Your task to perform on an android device: open a bookmark in the chrome app Image 0: 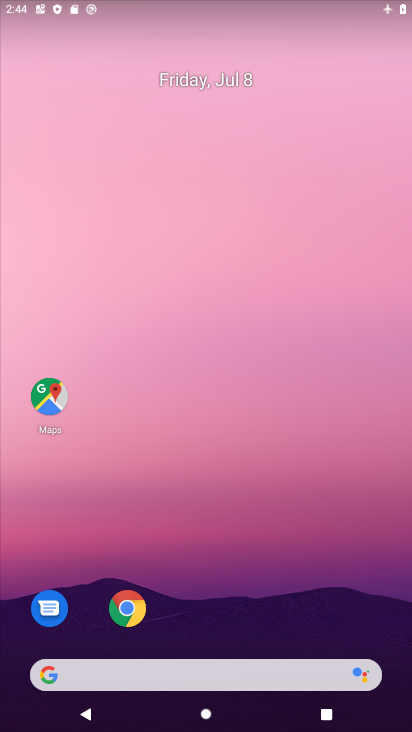
Step 0: drag from (295, 678) to (351, 30)
Your task to perform on an android device: open a bookmark in the chrome app Image 1: 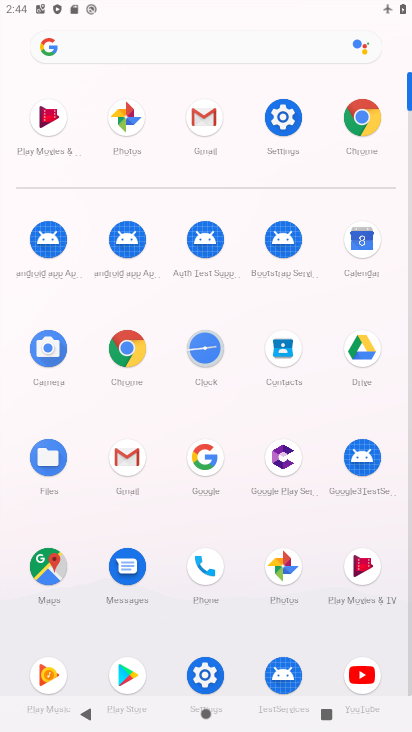
Step 1: click (133, 362)
Your task to perform on an android device: open a bookmark in the chrome app Image 2: 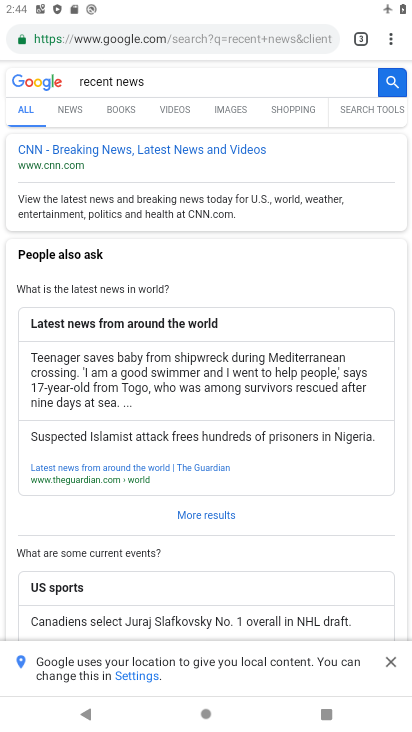
Step 2: task complete